Your task to perform on an android device: check storage Image 0: 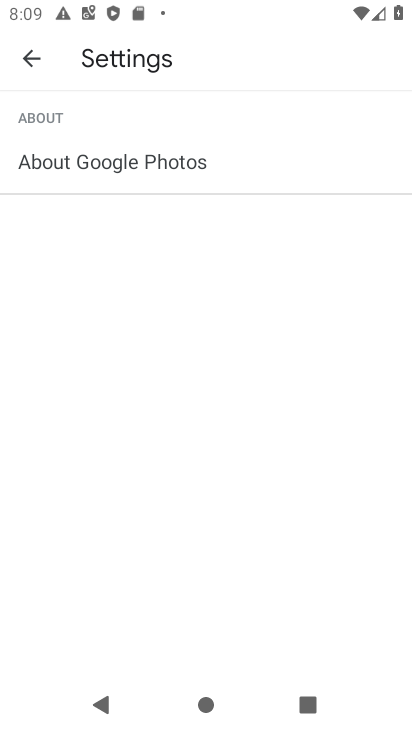
Step 0: press home button
Your task to perform on an android device: check storage Image 1: 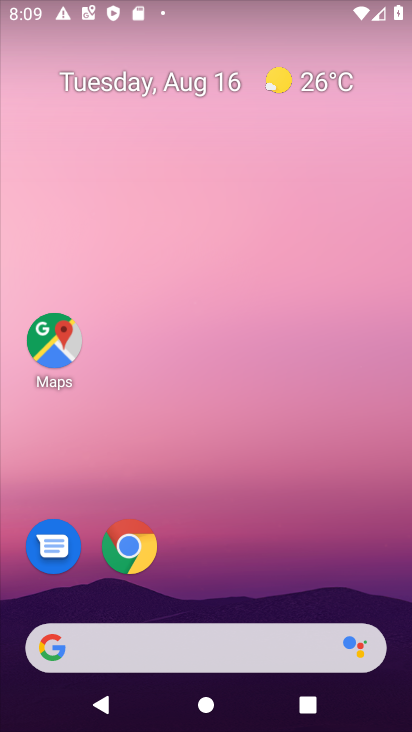
Step 1: drag from (213, 561) to (306, 15)
Your task to perform on an android device: check storage Image 2: 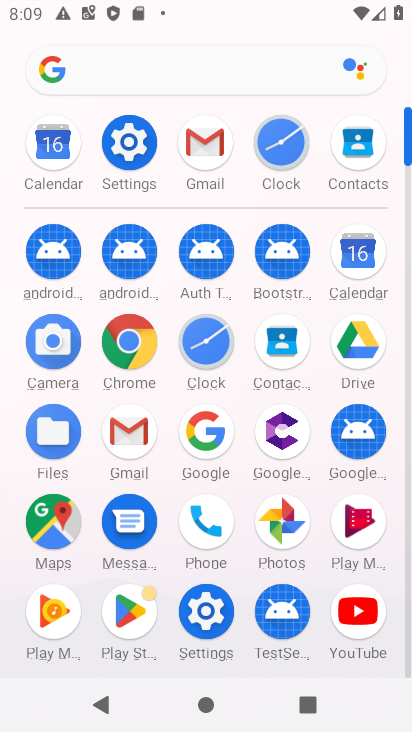
Step 2: click (129, 141)
Your task to perform on an android device: check storage Image 3: 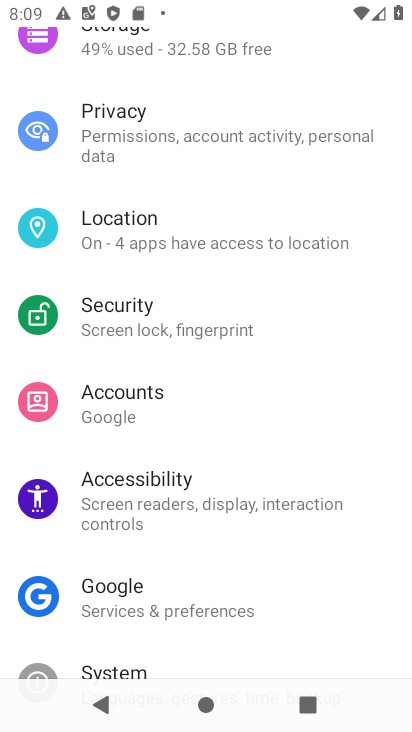
Step 3: drag from (241, 214) to (257, 626)
Your task to perform on an android device: check storage Image 4: 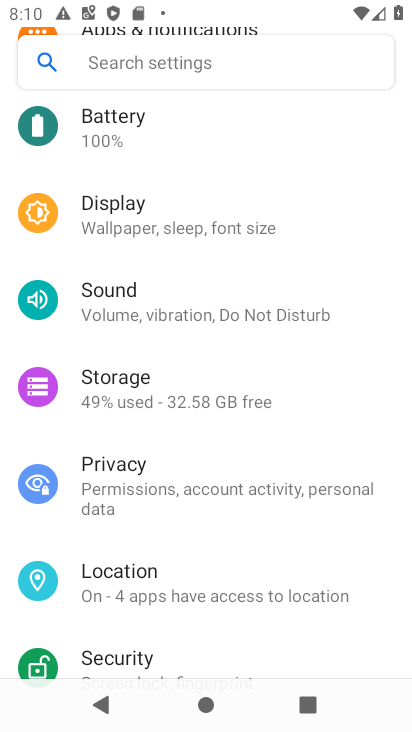
Step 4: click (194, 385)
Your task to perform on an android device: check storage Image 5: 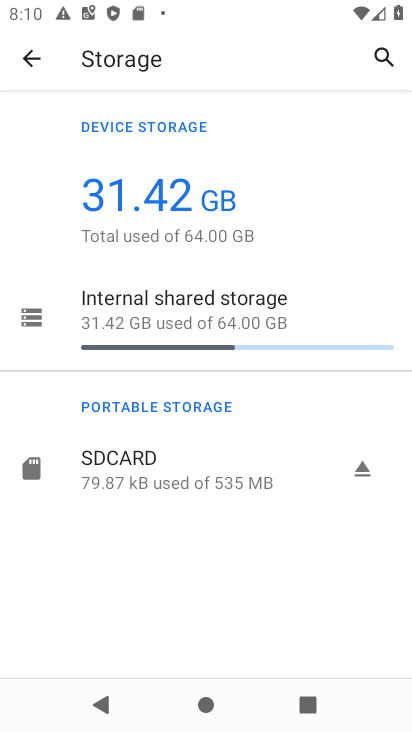
Step 5: task complete